Your task to perform on an android device: turn on location history Image 0: 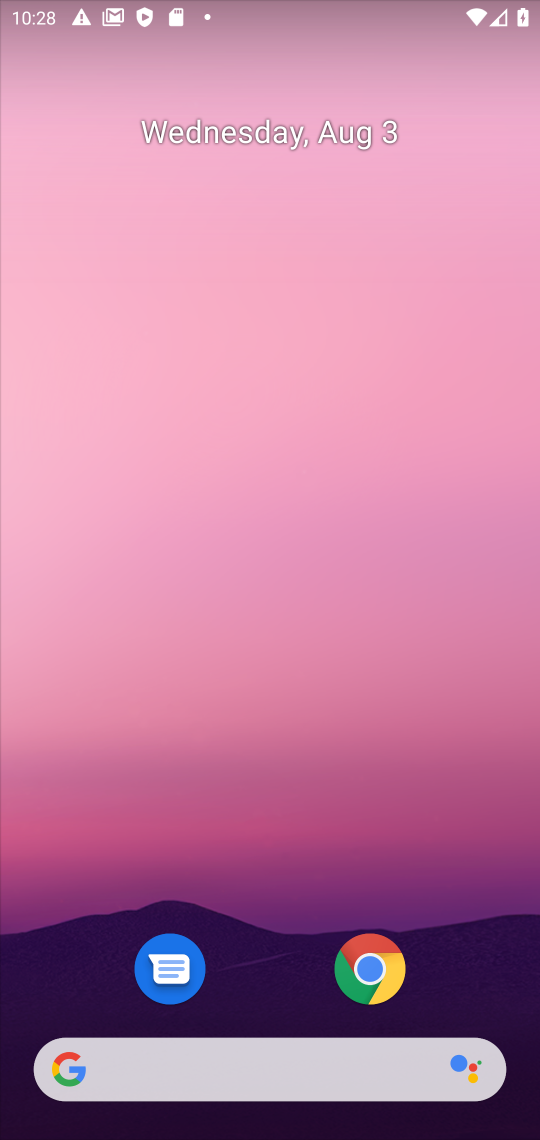
Step 0: drag from (269, 1046) to (131, 4)
Your task to perform on an android device: turn on location history Image 1: 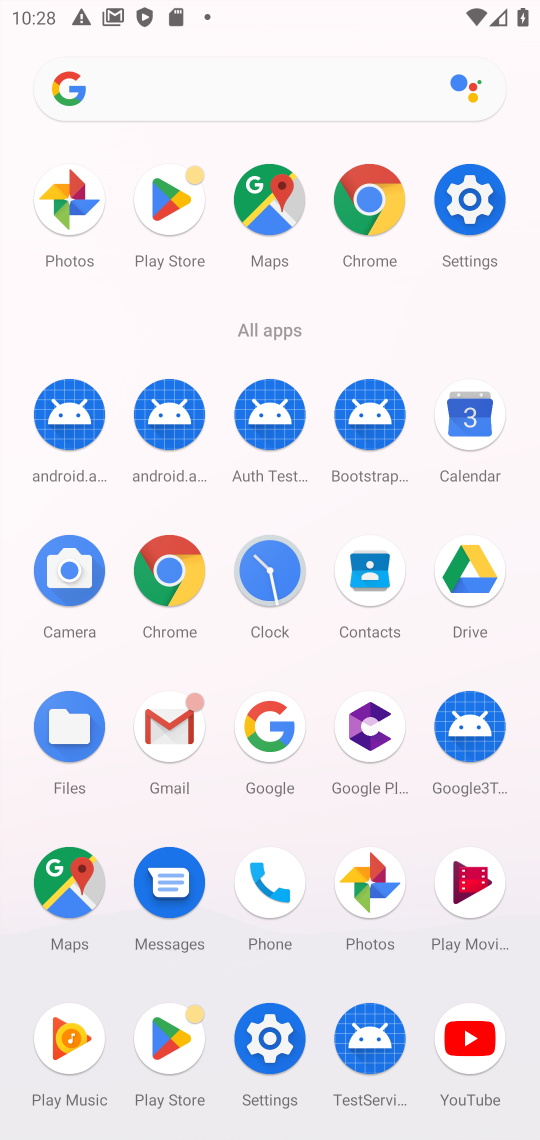
Step 1: click (256, 1020)
Your task to perform on an android device: turn on location history Image 2: 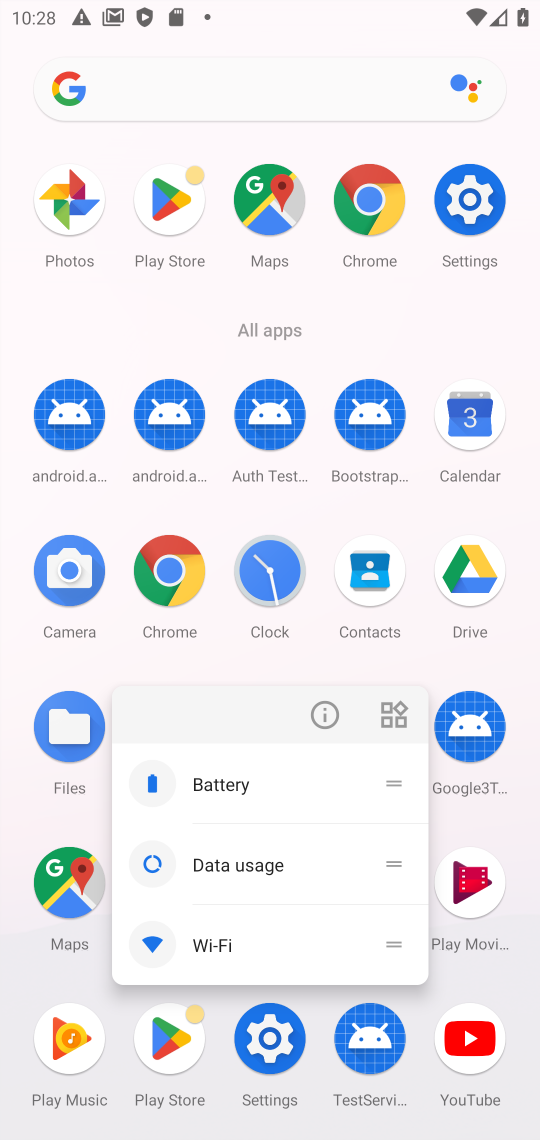
Step 2: click (260, 1011)
Your task to perform on an android device: turn on location history Image 3: 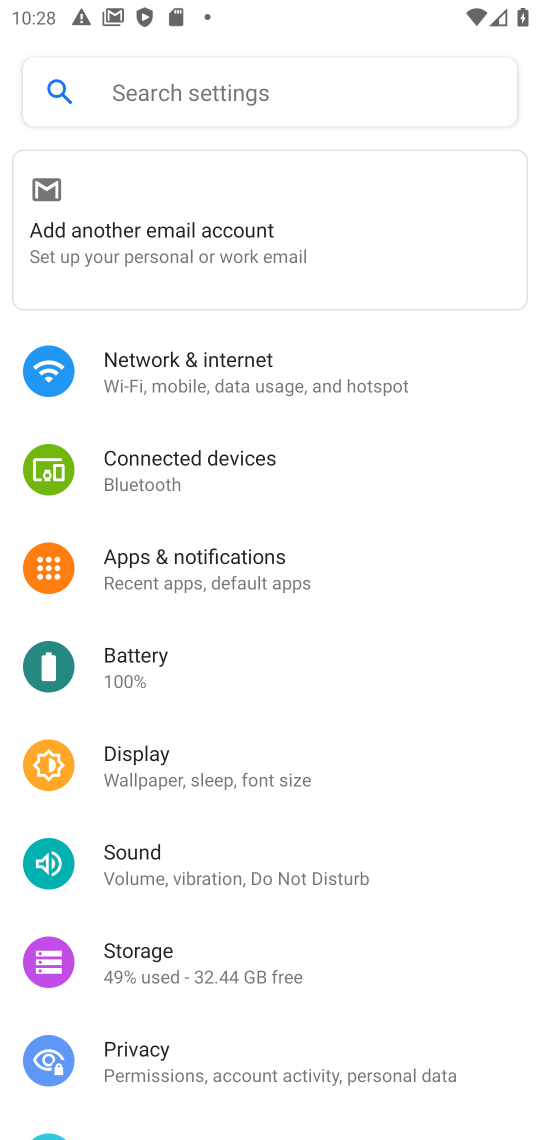
Step 3: drag from (166, 1061) to (102, 382)
Your task to perform on an android device: turn on location history Image 4: 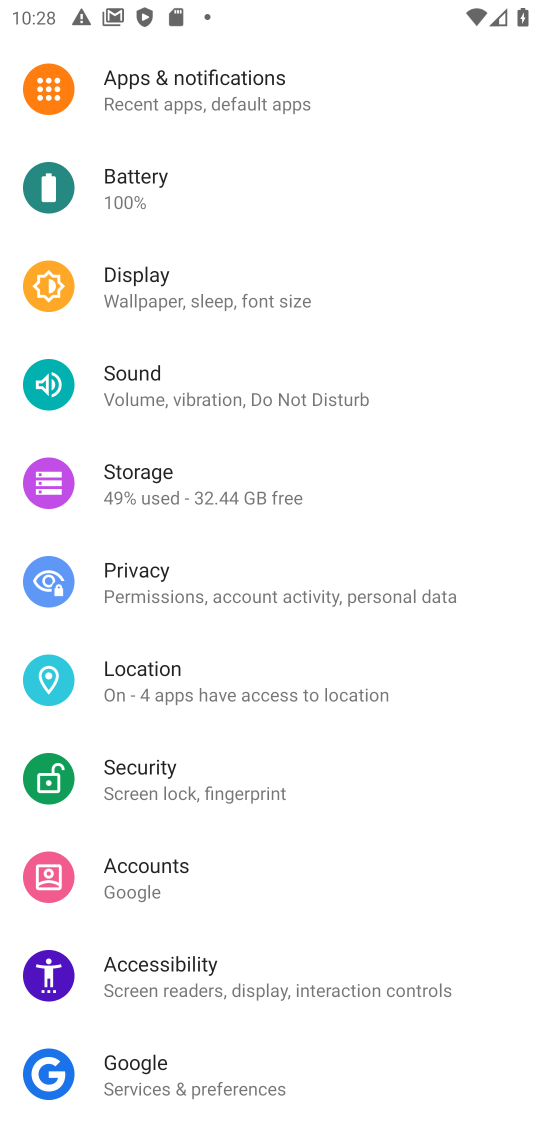
Step 4: click (90, 704)
Your task to perform on an android device: turn on location history Image 5: 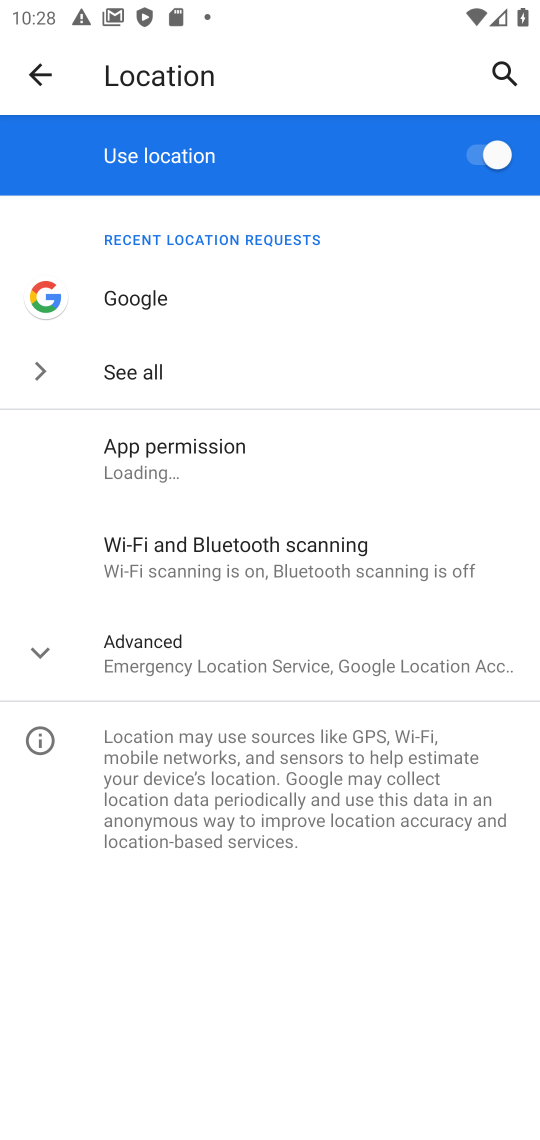
Step 5: click (130, 673)
Your task to perform on an android device: turn on location history Image 6: 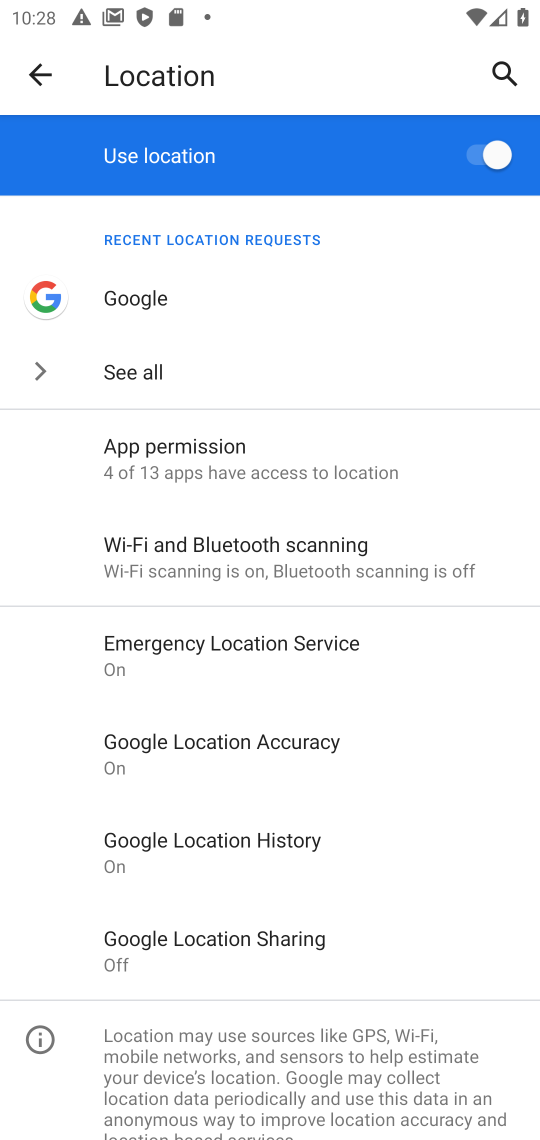
Step 6: click (223, 835)
Your task to perform on an android device: turn on location history Image 7: 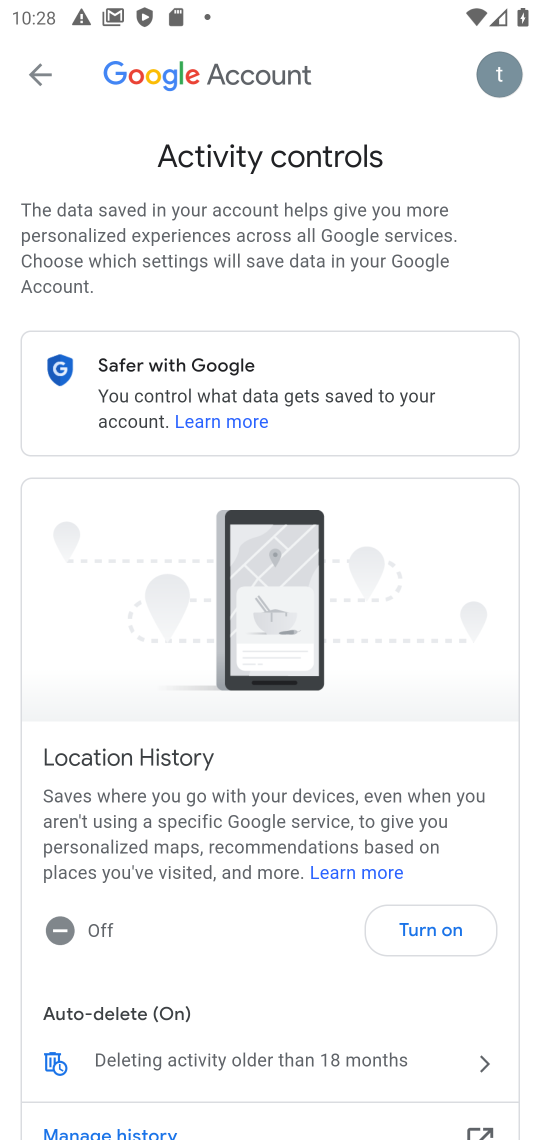
Step 7: click (397, 930)
Your task to perform on an android device: turn on location history Image 8: 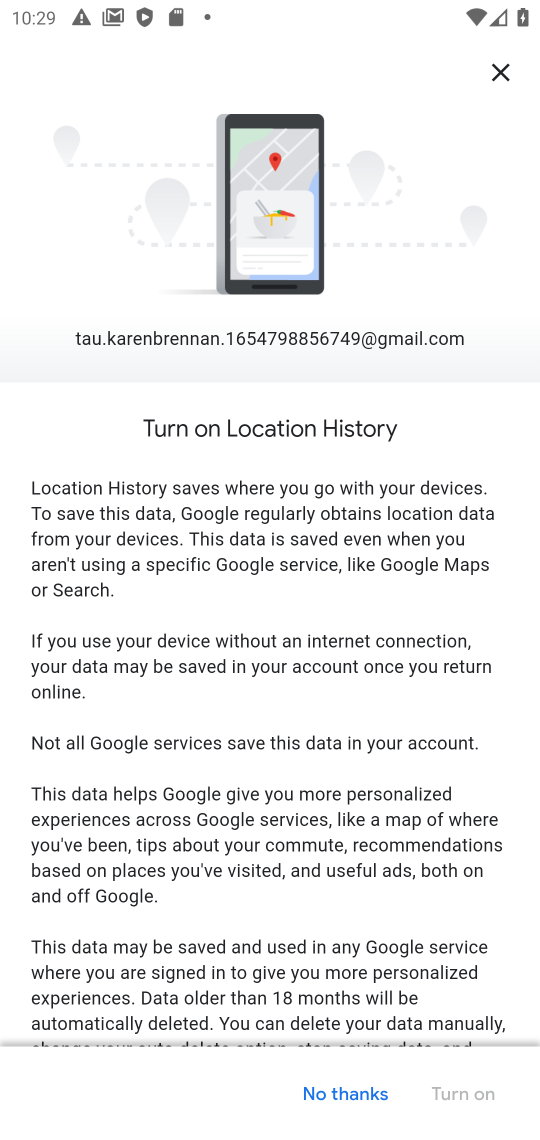
Step 8: drag from (408, 690) to (278, 39)
Your task to perform on an android device: turn on location history Image 9: 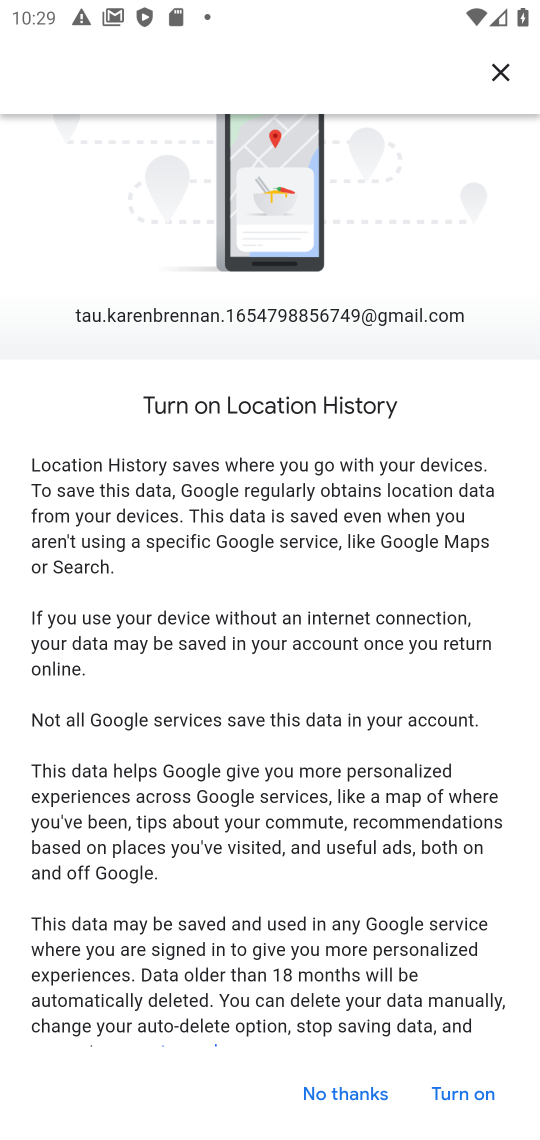
Step 9: drag from (416, 875) to (310, 71)
Your task to perform on an android device: turn on location history Image 10: 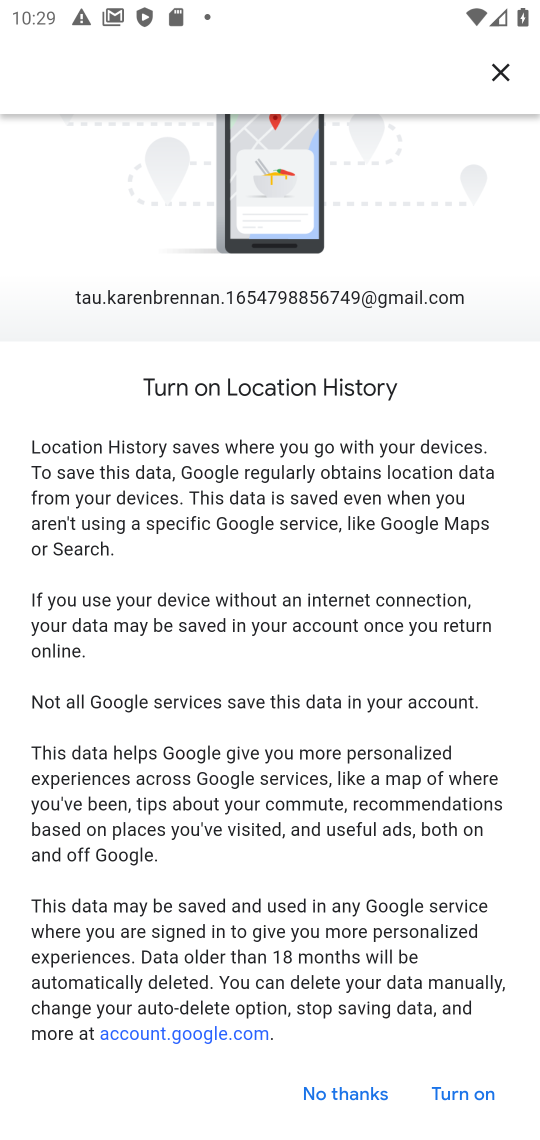
Step 10: drag from (292, 850) to (247, 290)
Your task to perform on an android device: turn on location history Image 11: 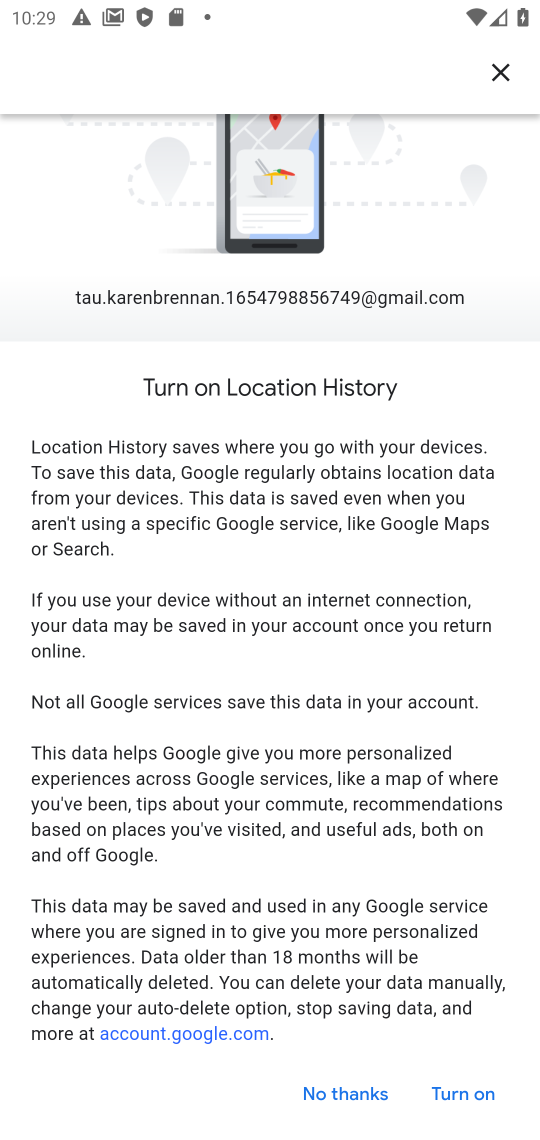
Step 11: click (474, 1105)
Your task to perform on an android device: turn on location history Image 12: 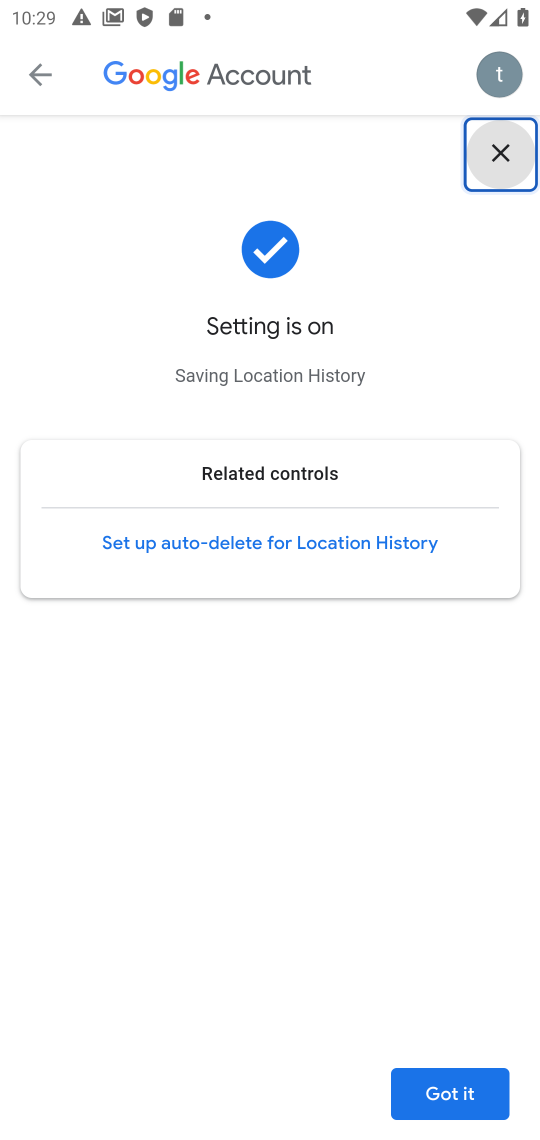
Step 12: click (459, 1099)
Your task to perform on an android device: turn on location history Image 13: 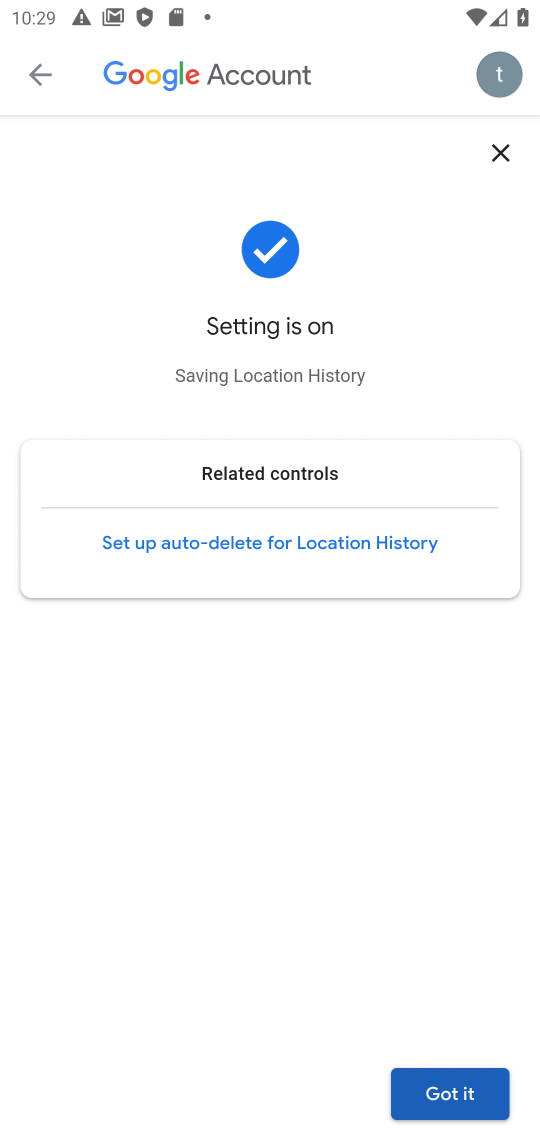
Step 13: click (463, 1105)
Your task to perform on an android device: turn on location history Image 14: 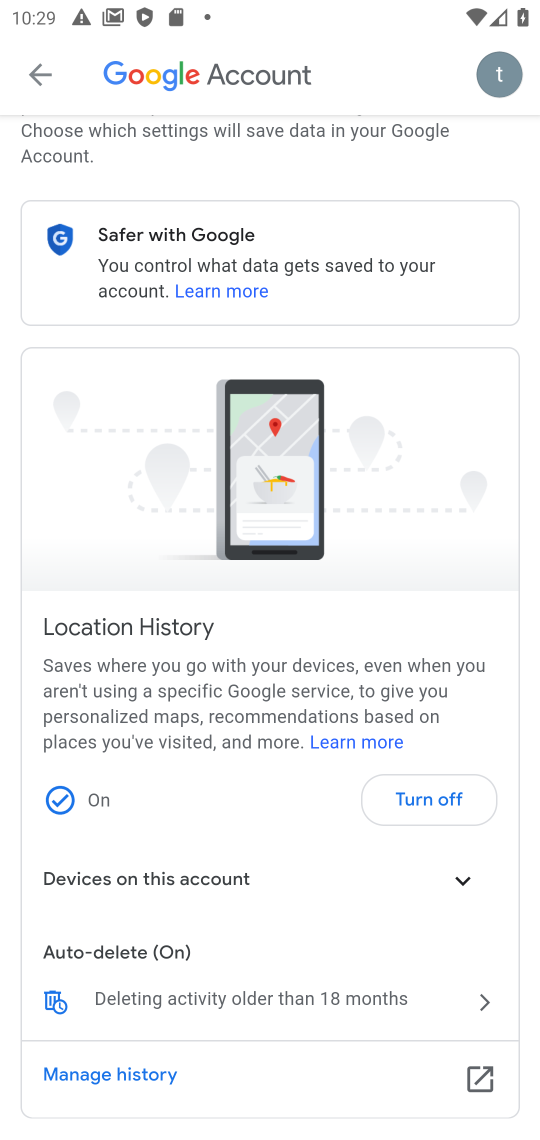
Step 14: task complete